Your task to perform on an android device: Search for the best rated phone case for the iPhone 8. Image 0: 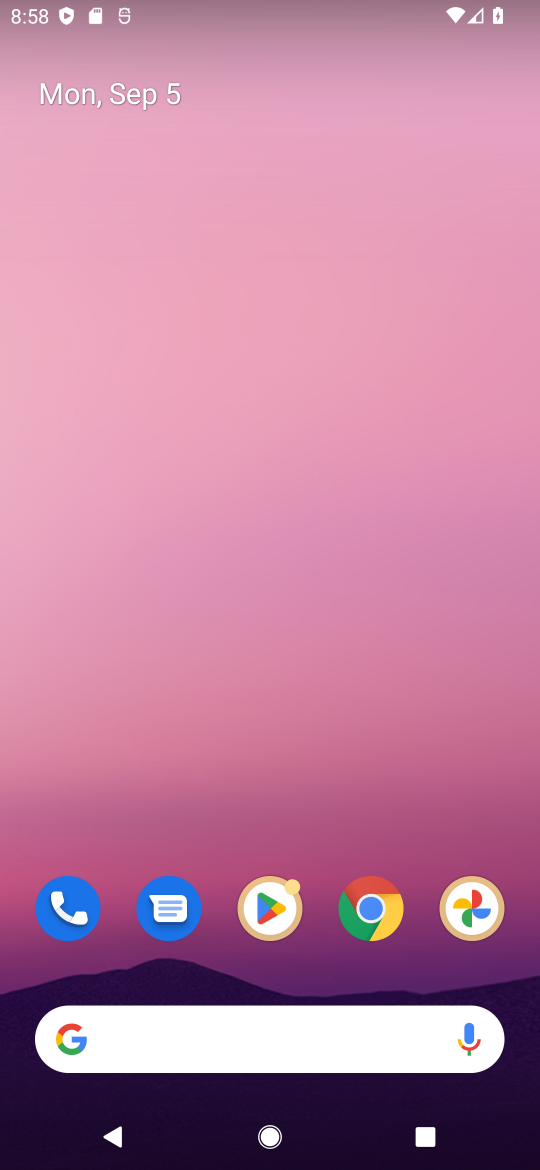
Step 0: click (121, 44)
Your task to perform on an android device: Search for the best rated phone case for the iPhone 8. Image 1: 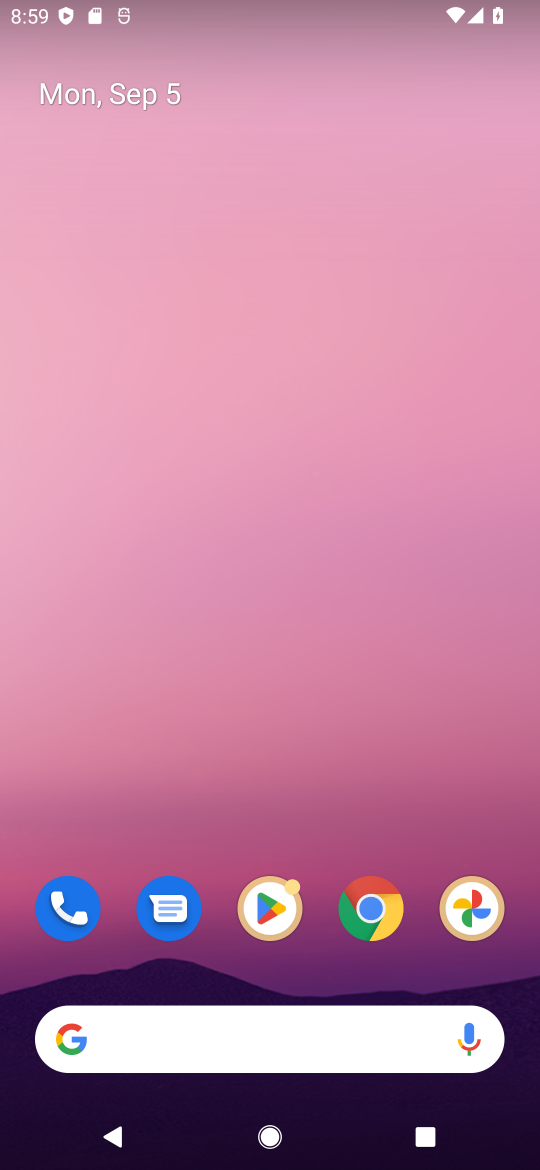
Step 1: drag from (38, 473) to (24, 759)
Your task to perform on an android device: Search for the best rated phone case for the iPhone 8. Image 2: 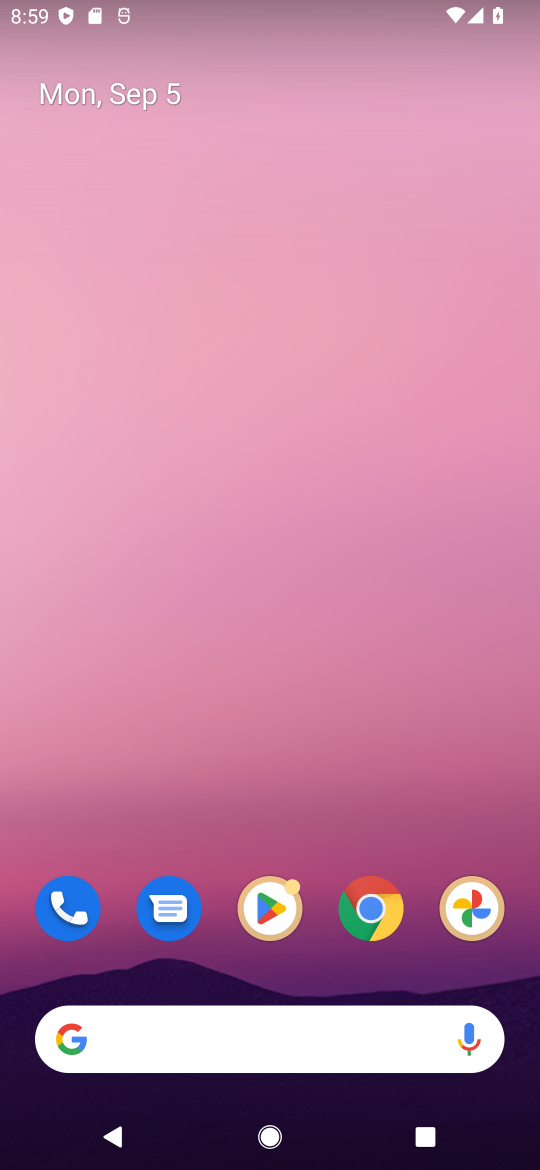
Step 2: click (305, 220)
Your task to perform on an android device: Search for the best rated phone case for the iPhone 8. Image 3: 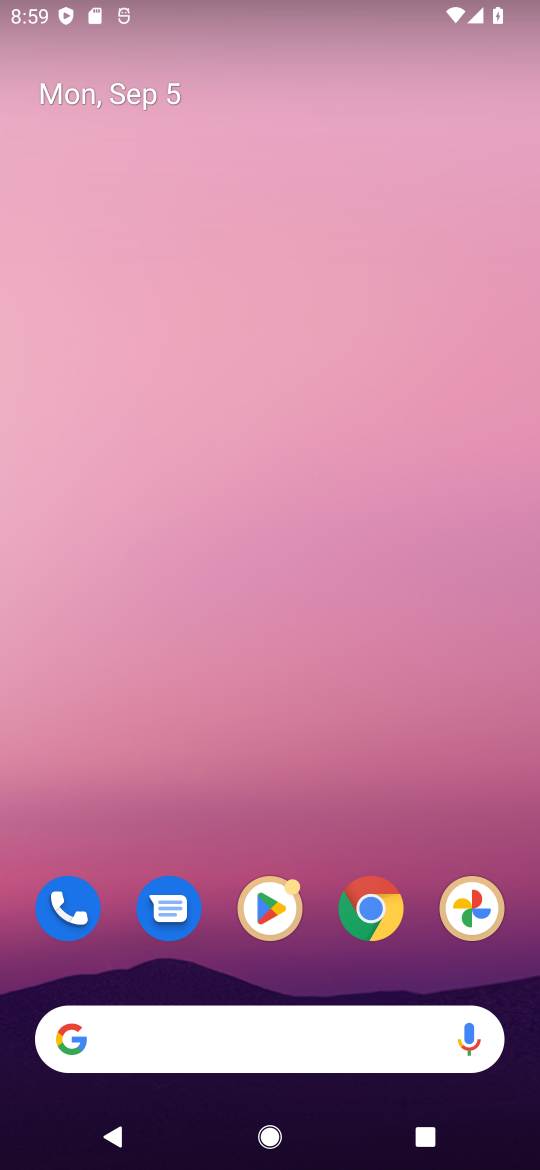
Step 3: drag from (260, 1007) to (353, 1132)
Your task to perform on an android device: Search for the best rated phone case for the iPhone 8. Image 4: 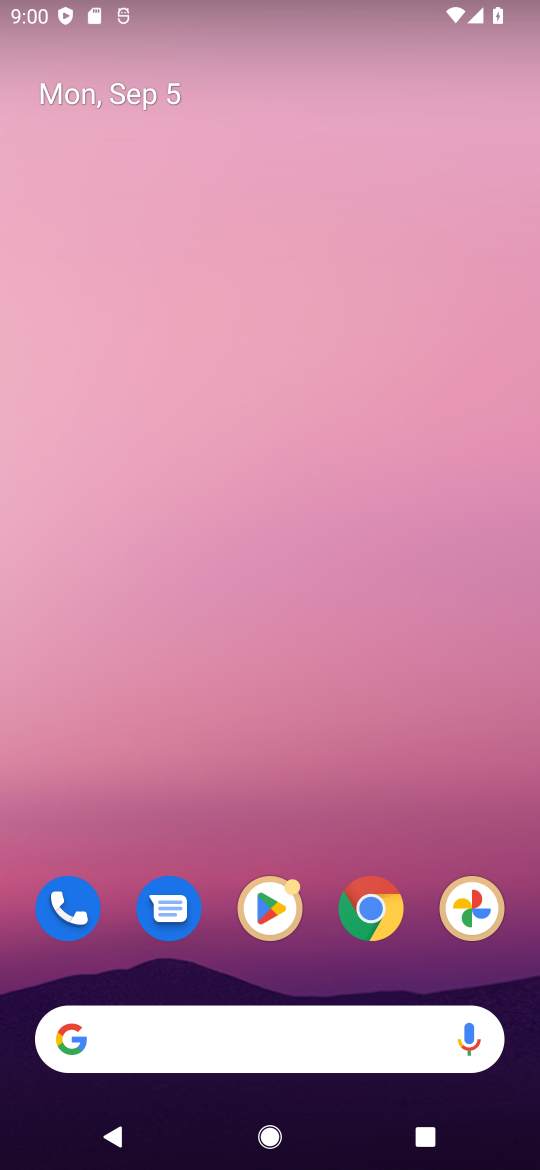
Step 4: drag from (298, 949) to (525, 12)
Your task to perform on an android device: Search for the best rated phone case for the iPhone 8. Image 5: 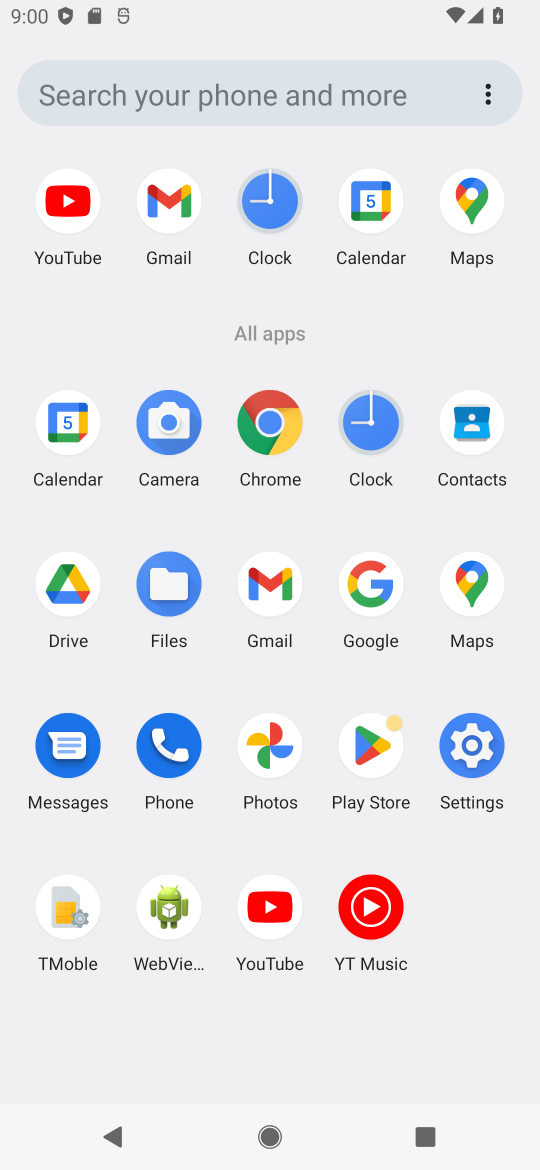
Step 5: click (280, 439)
Your task to perform on an android device: Search for the best rated phone case for the iPhone 8. Image 6: 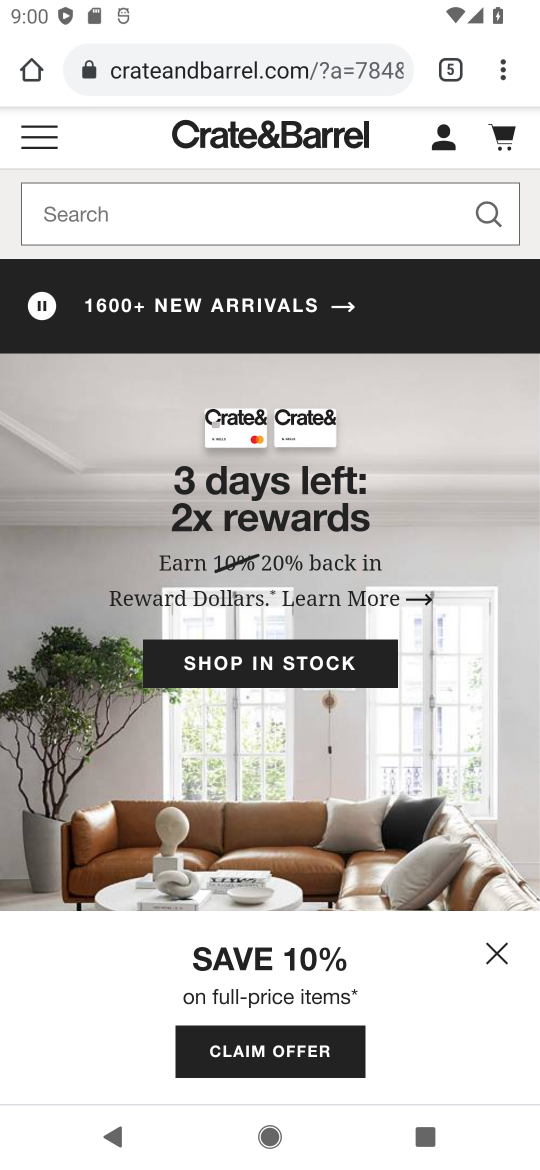
Step 6: click (455, 51)
Your task to perform on an android device: Search for the best rated phone case for the iPhone 8. Image 7: 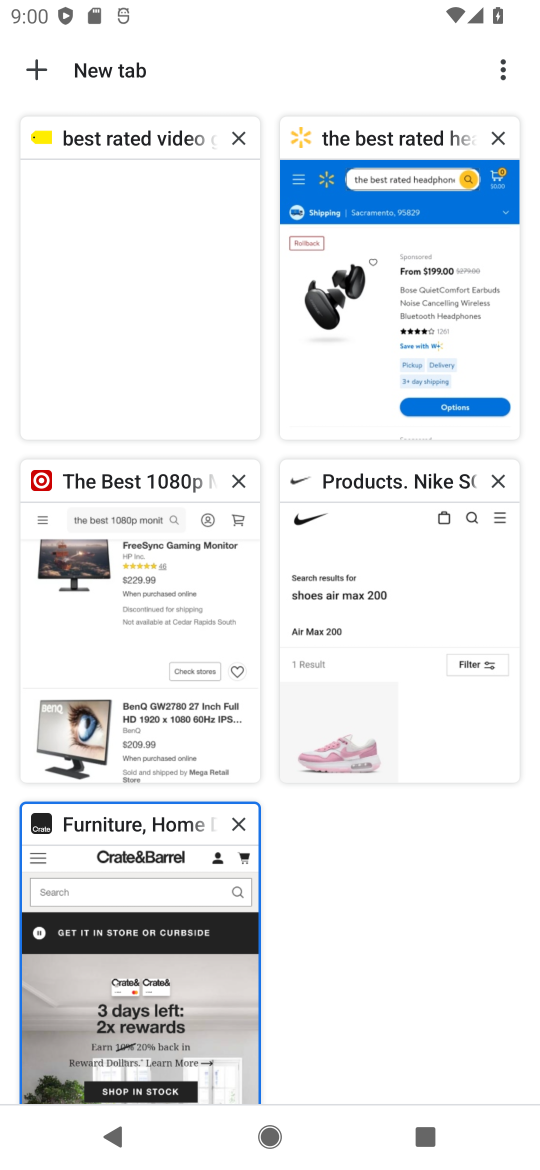
Step 7: click (38, 75)
Your task to perform on an android device: Search for the best rated phone case for the iPhone 8. Image 8: 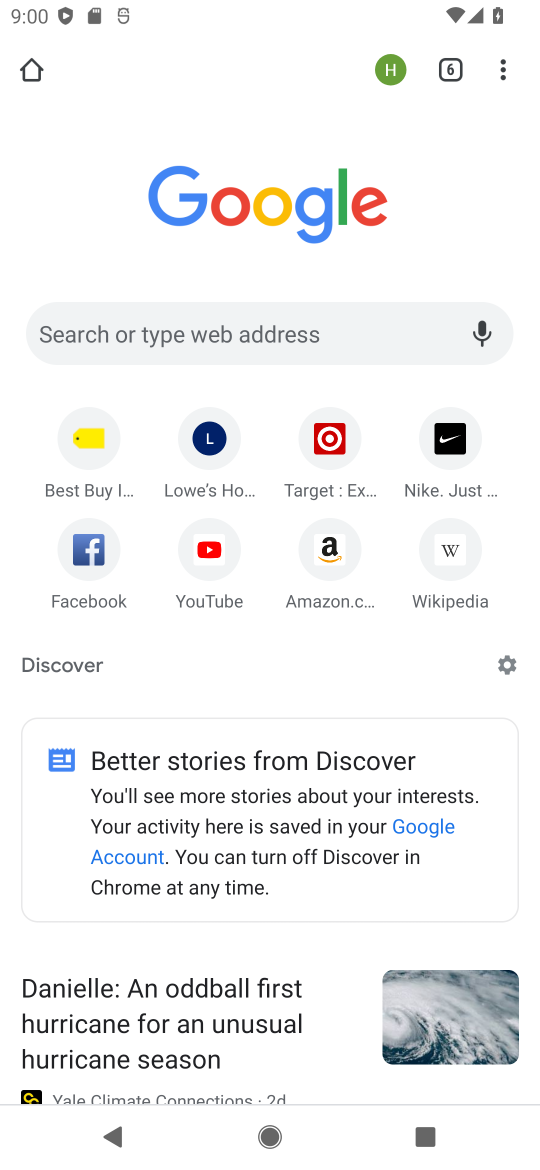
Step 8: click (130, 327)
Your task to perform on an android device: Search for the best rated phone case for the iPhone 8. Image 9: 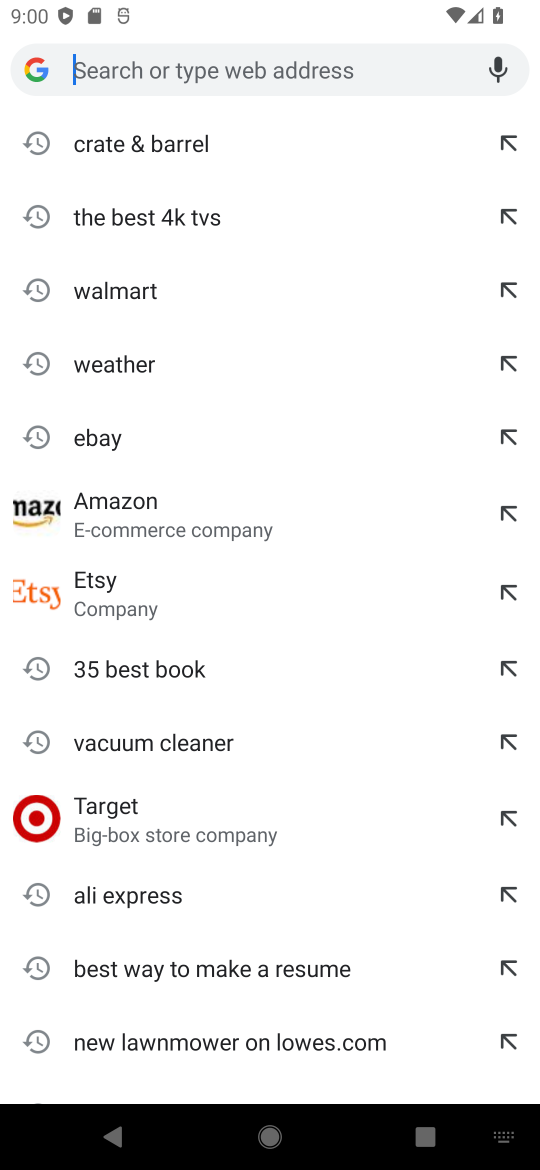
Step 9: type "the best rated phone case for the iPhone 8"
Your task to perform on an android device: Search for the best rated phone case for the iPhone 8. Image 10: 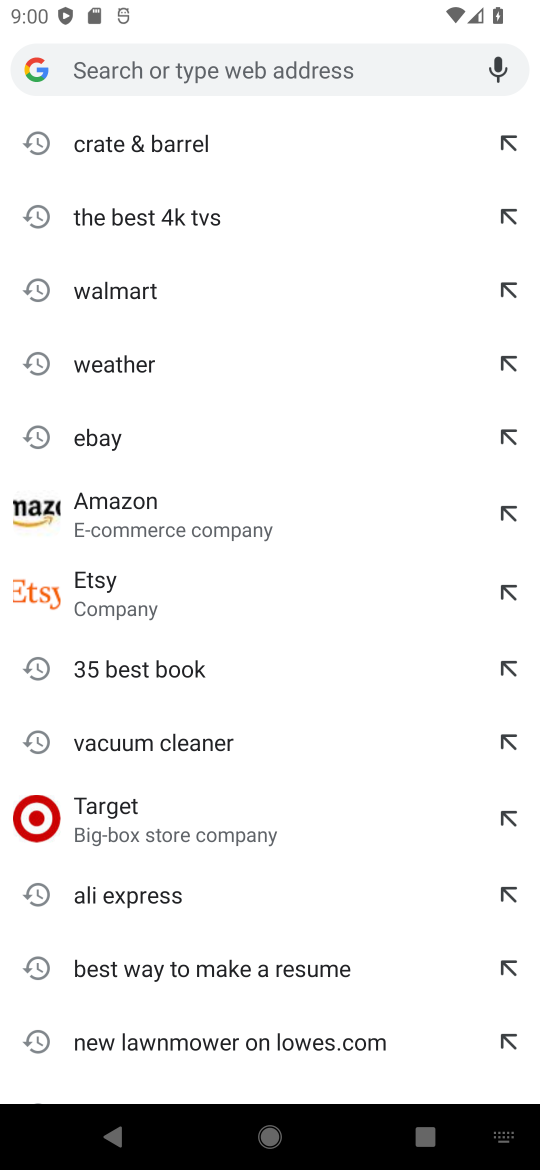
Step 10: click (148, 76)
Your task to perform on an android device: Search for the best rated phone case for the iPhone 8. Image 11: 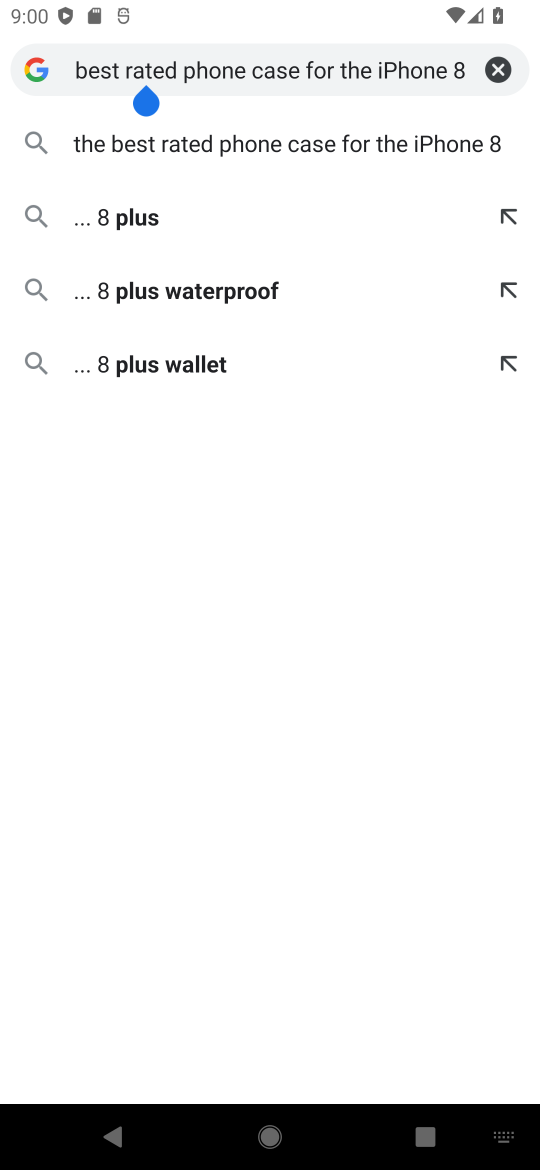
Step 11: click (190, 138)
Your task to perform on an android device: Search for the best rated phone case for the iPhone 8. Image 12: 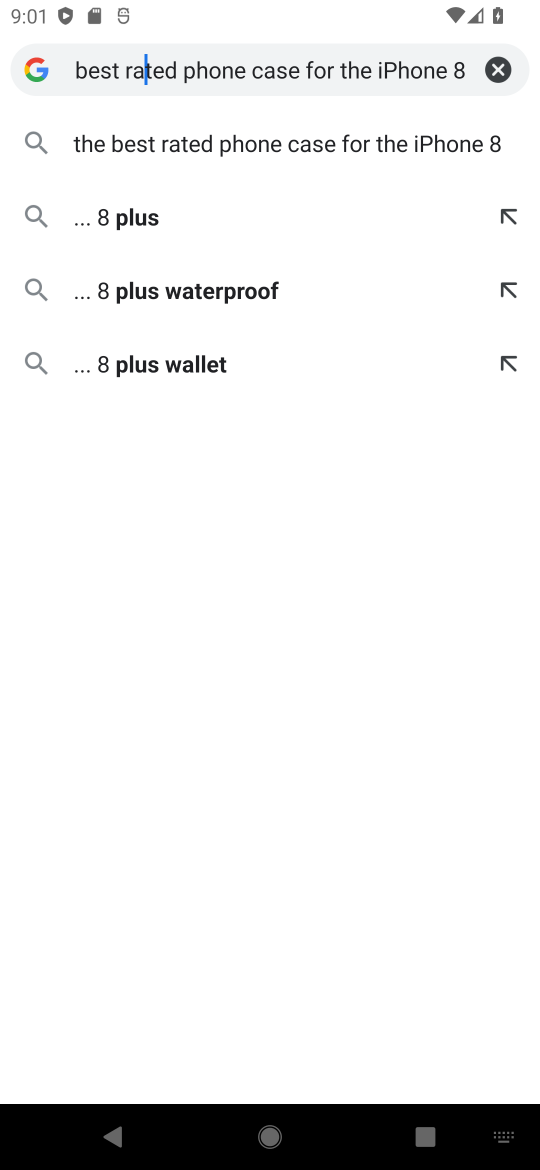
Step 12: click (191, 141)
Your task to perform on an android device: Search for the best rated phone case for the iPhone 8. Image 13: 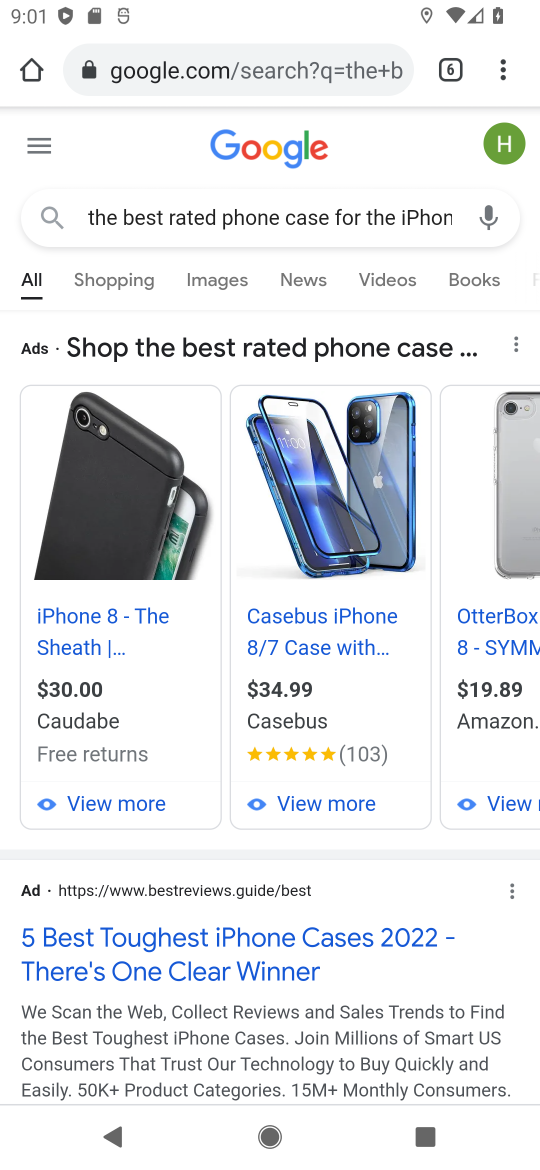
Step 13: press home button
Your task to perform on an android device: Search for the best rated phone case for the iPhone 8. Image 14: 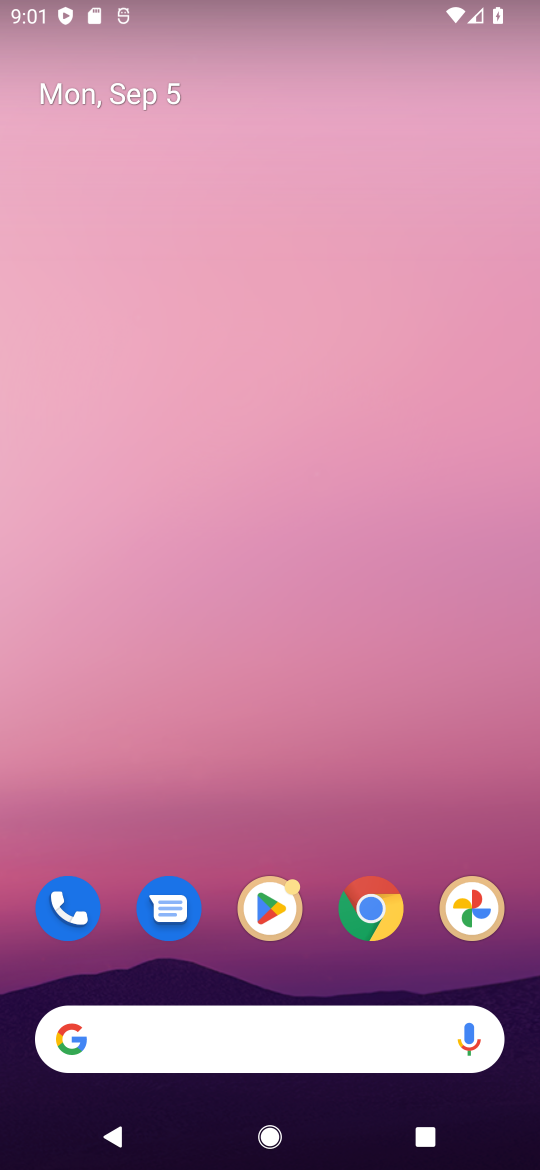
Step 14: drag from (315, 811) to (306, 0)
Your task to perform on an android device: Search for the best rated phone case for the iPhone 8. Image 15: 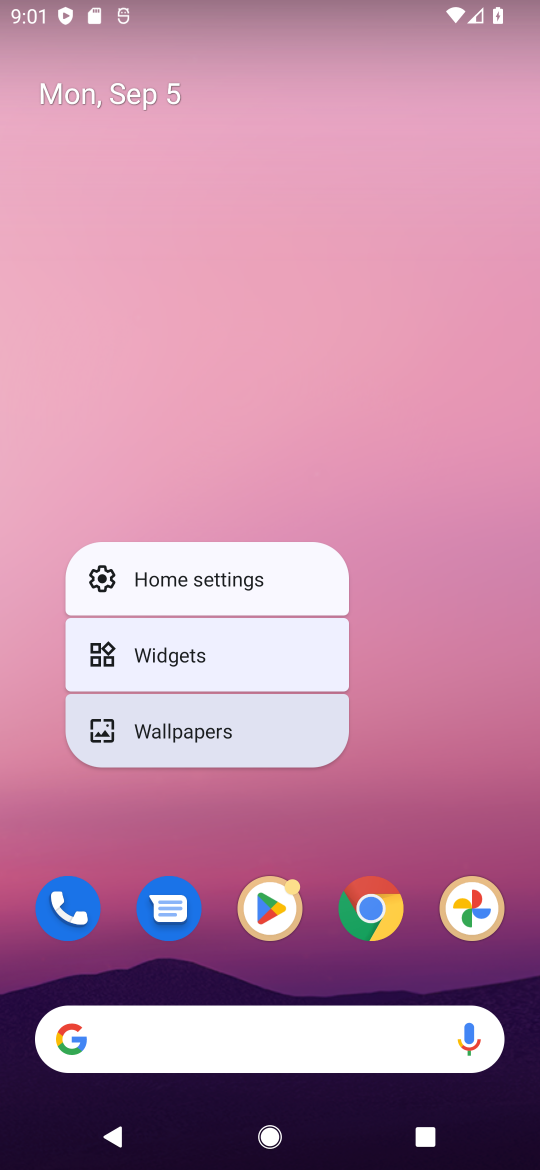
Step 15: click (365, 889)
Your task to perform on an android device: Search for the best rated phone case for the iPhone 8. Image 16: 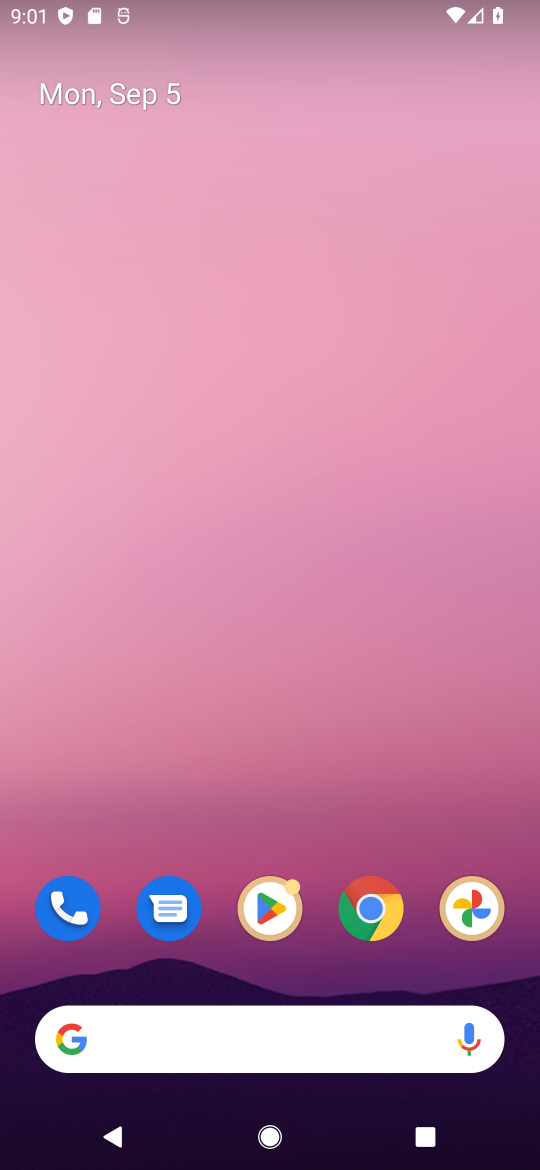
Step 16: click (371, 917)
Your task to perform on an android device: Search for the best rated phone case for the iPhone 8. Image 17: 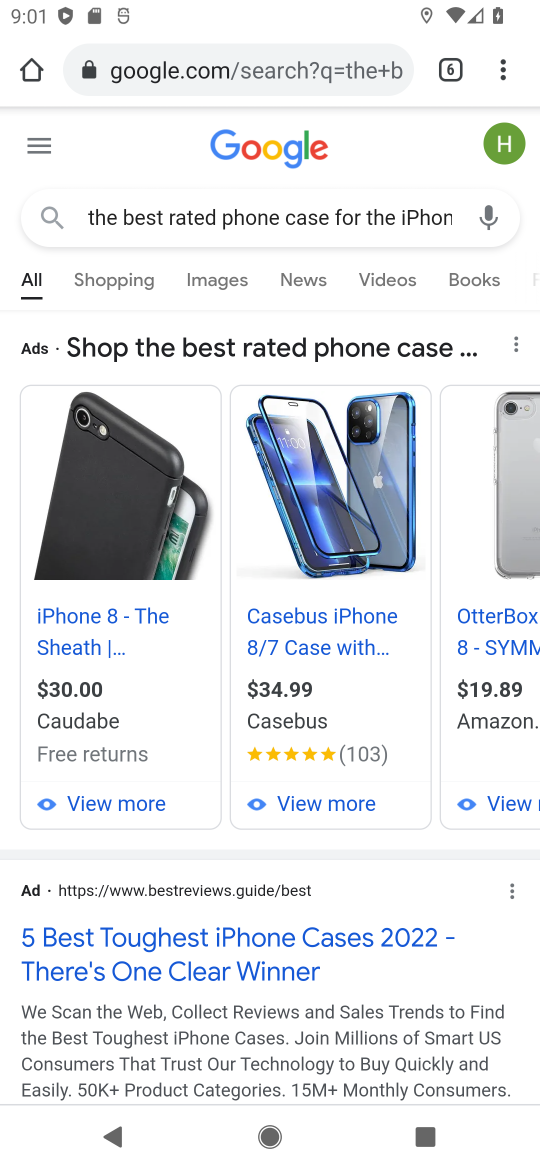
Step 17: task complete